Your task to perform on an android device: remove spam from my inbox in the gmail app Image 0: 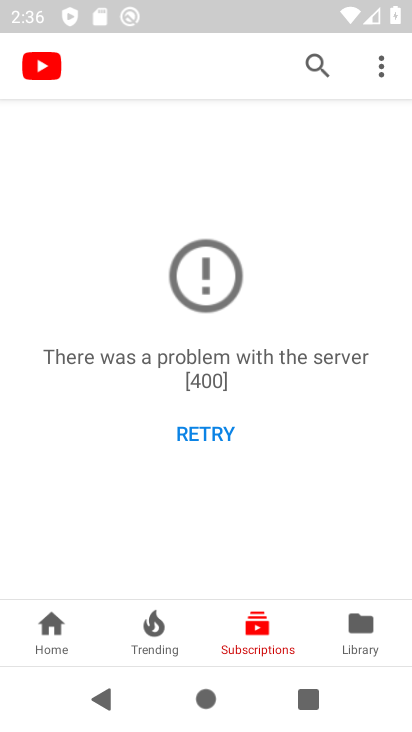
Step 0: press home button
Your task to perform on an android device: remove spam from my inbox in the gmail app Image 1: 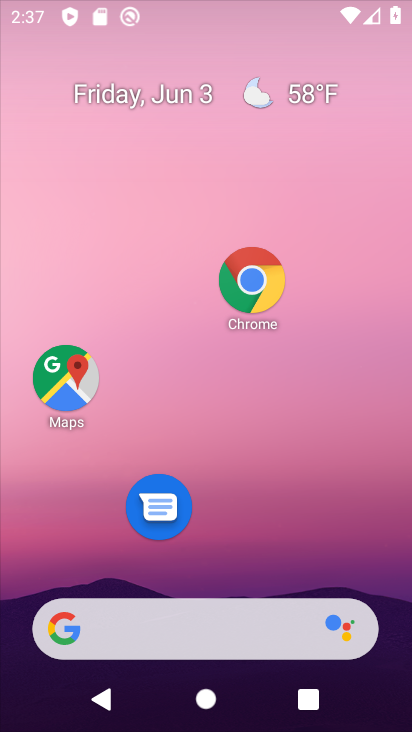
Step 1: drag from (264, 554) to (237, 97)
Your task to perform on an android device: remove spam from my inbox in the gmail app Image 2: 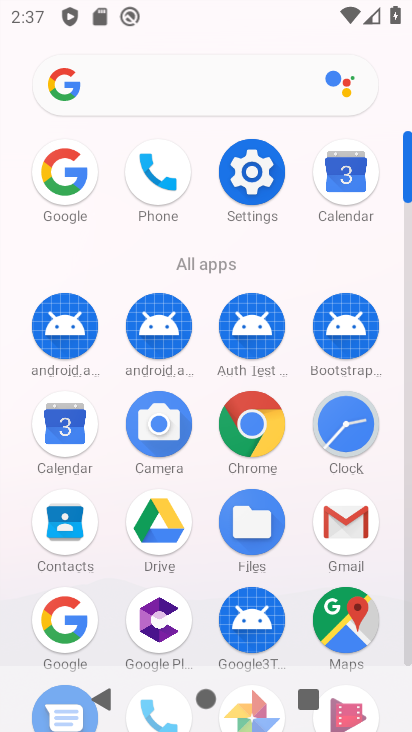
Step 2: click (355, 515)
Your task to perform on an android device: remove spam from my inbox in the gmail app Image 3: 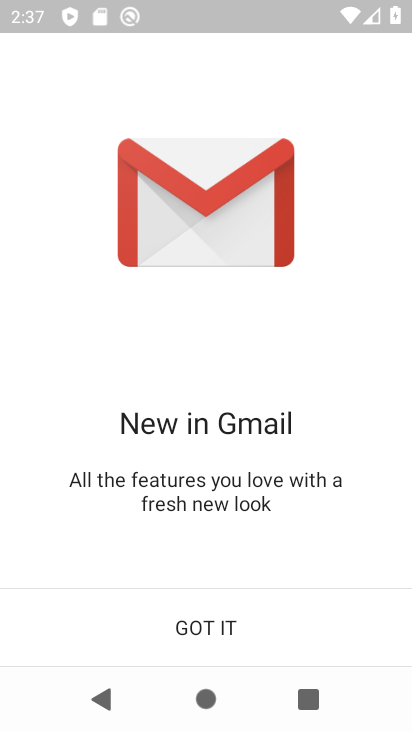
Step 3: click (239, 620)
Your task to perform on an android device: remove spam from my inbox in the gmail app Image 4: 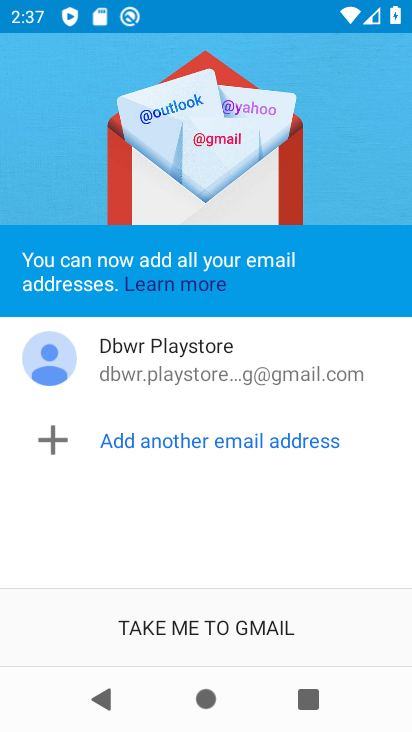
Step 4: click (230, 621)
Your task to perform on an android device: remove spam from my inbox in the gmail app Image 5: 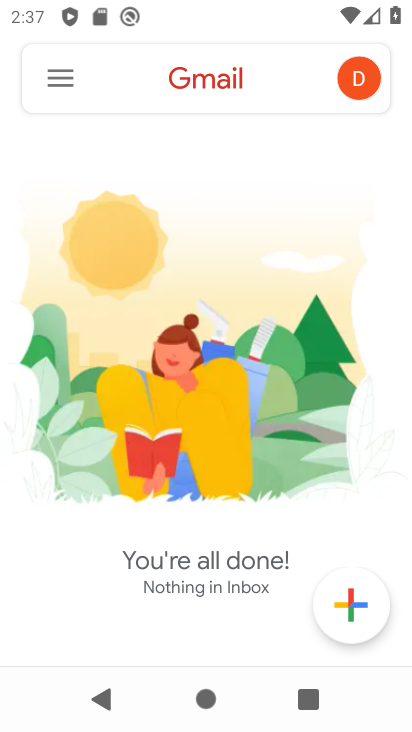
Step 5: click (59, 77)
Your task to perform on an android device: remove spam from my inbox in the gmail app Image 6: 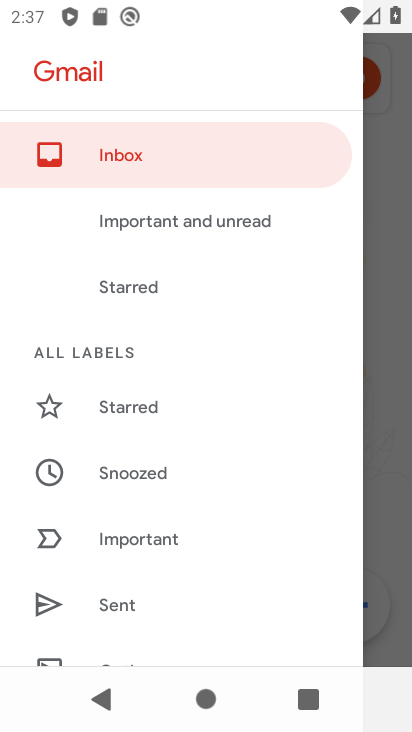
Step 6: click (133, 169)
Your task to perform on an android device: remove spam from my inbox in the gmail app Image 7: 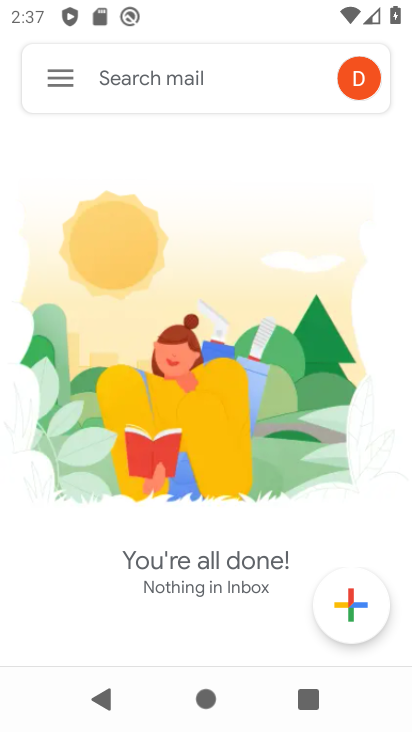
Step 7: task complete